Your task to perform on an android device: open app "Google Play services" (install if not already installed) Image 0: 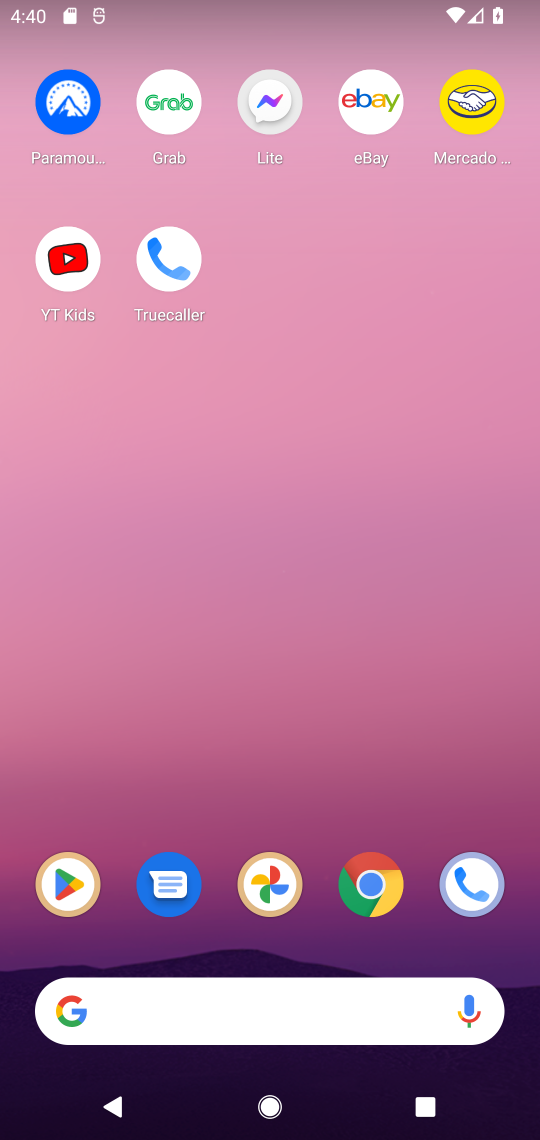
Step 0: press home button
Your task to perform on an android device: open app "Google Play services" (install if not already installed) Image 1: 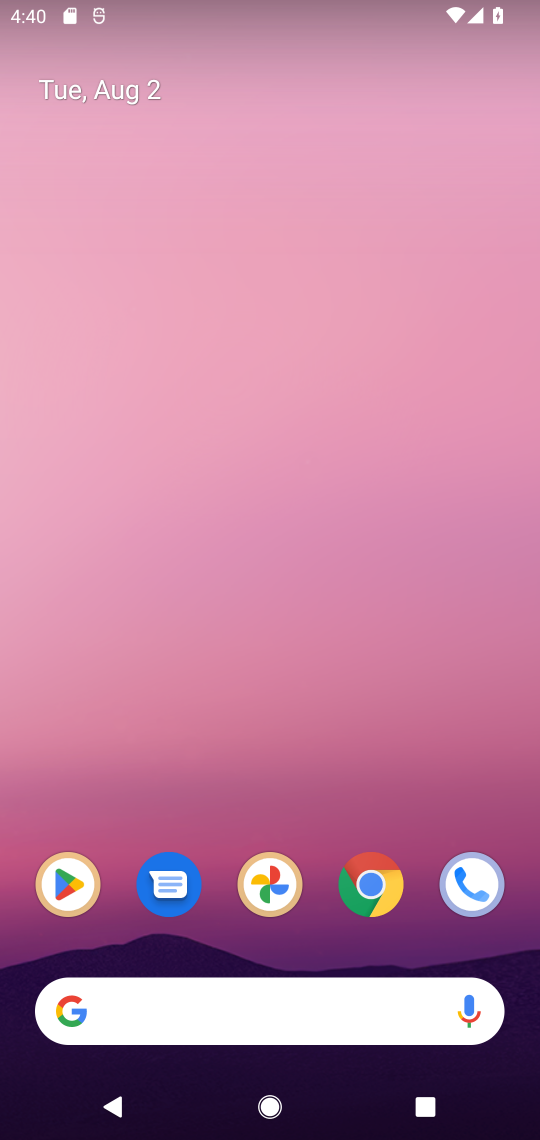
Step 1: click (61, 888)
Your task to perform on an android device: open app "Google Play services" (install if not already installed) Image 2: 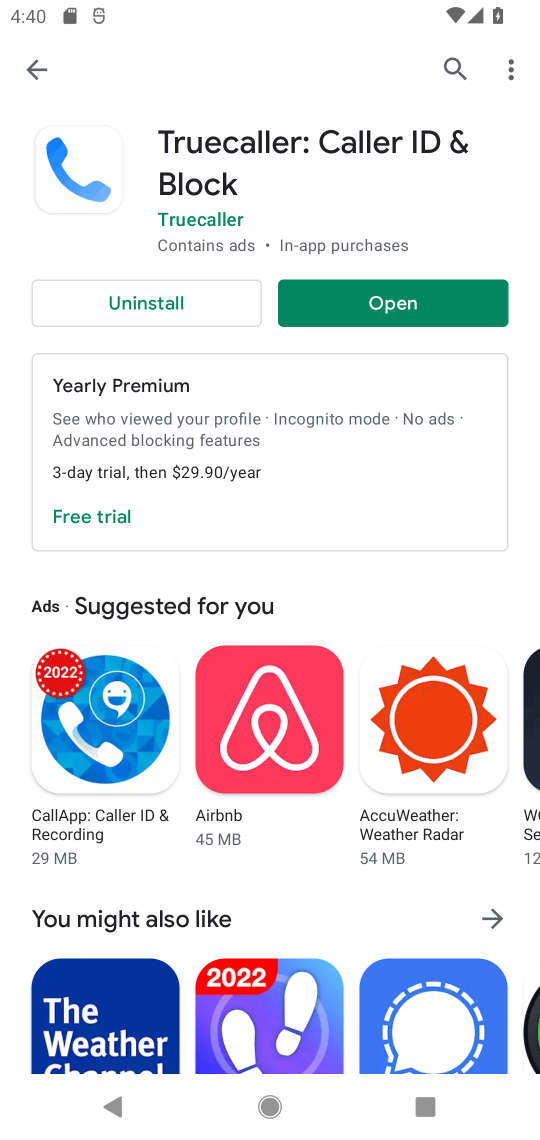
Step 2: click (455, 52)
Your task to perform on an android device: open app "Google Play services" (install if not already installed) Image 3: 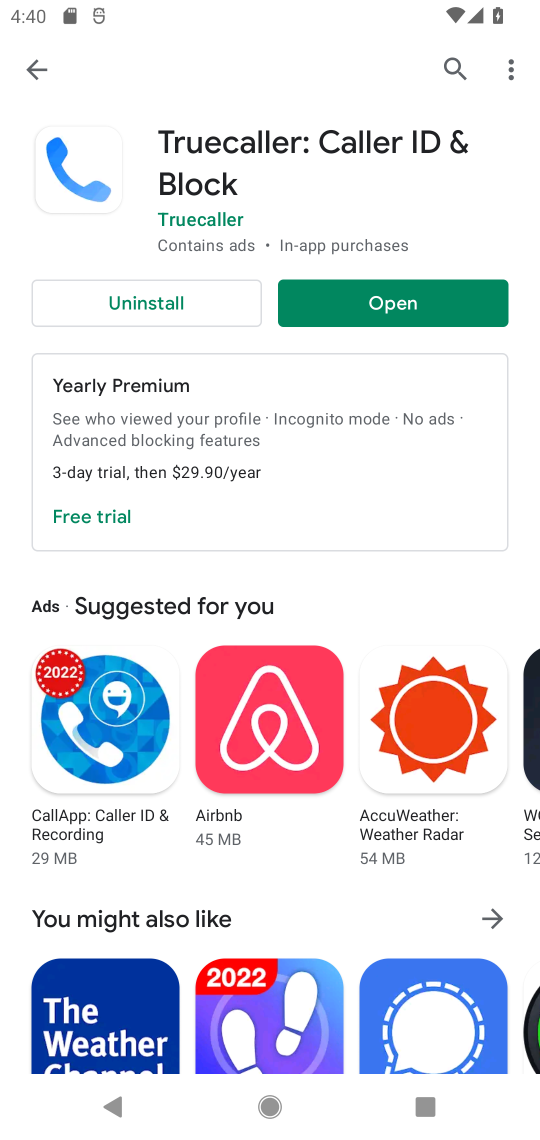
Step 3: click (465, 58)
Your task to perform on an android device: open app "Google Play services" (install if not already installed) Image 4: 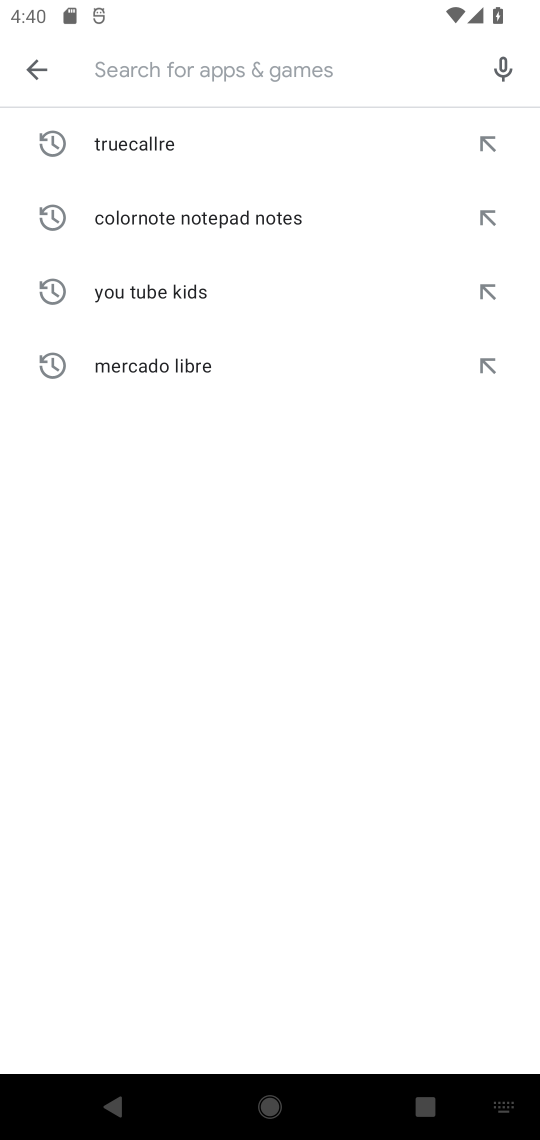
Step 4: type "Google Play services"
Your task to perform on an android device: open app "Google Play services" (install if not already installed) Image 5: 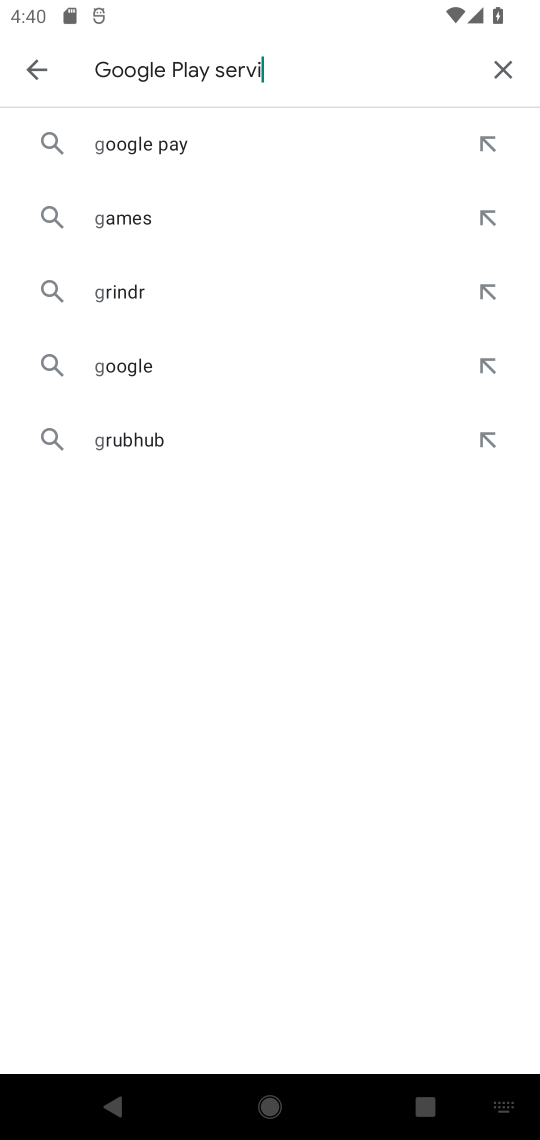
Step 5: type ""
Your task to perform on an android device: open app "Google Play services" (install if not already installed) Image 6: 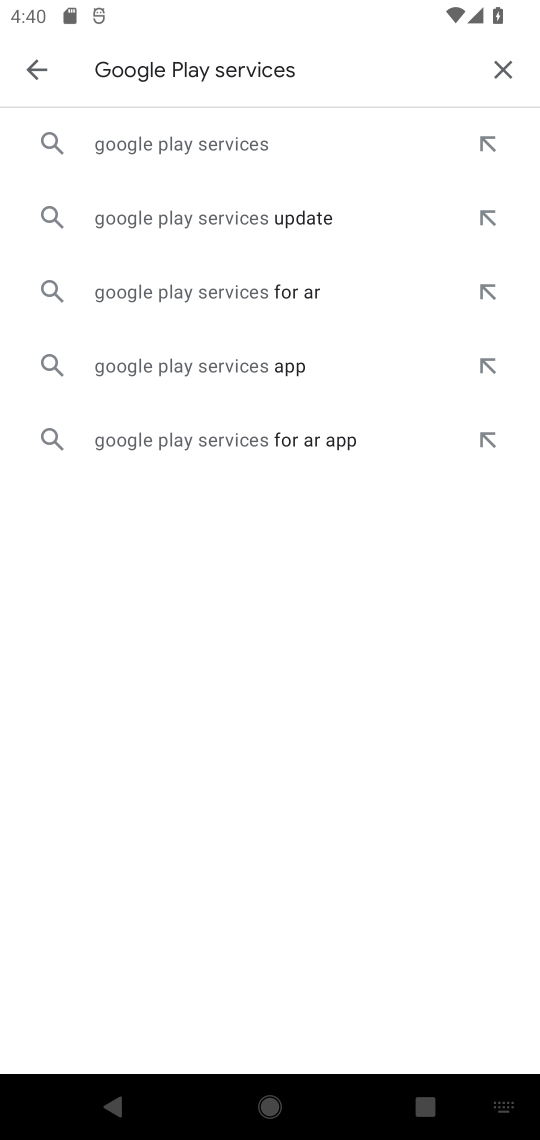
Step 6: click (160, 141)
Your task to perform on an android device: open app "Google Play services" (install if not already installed) Image 7: 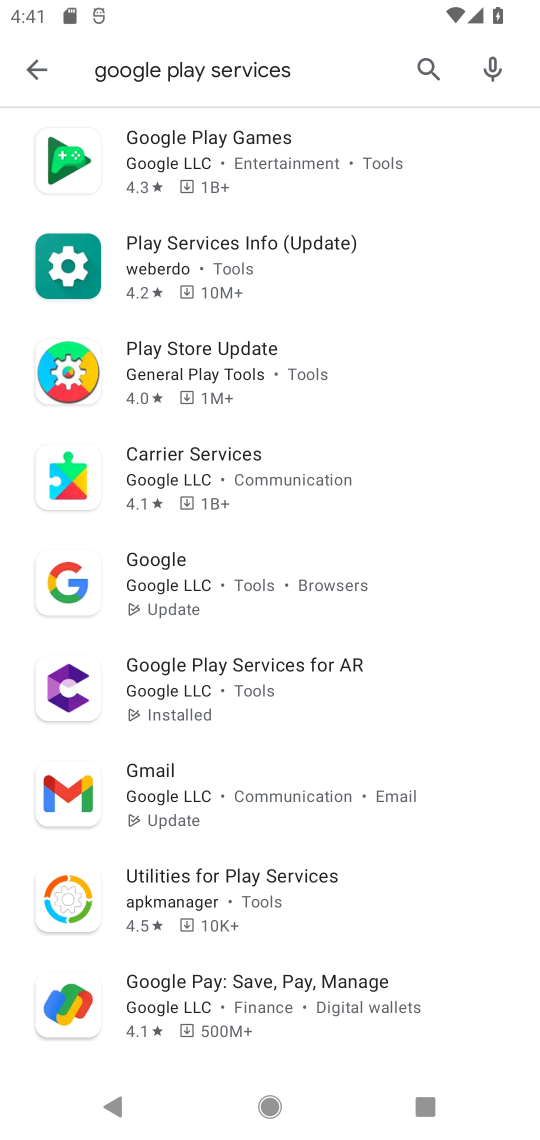
Step 7: task complete